Your task to perform on an android device: find photos in the google photos app Image 0: 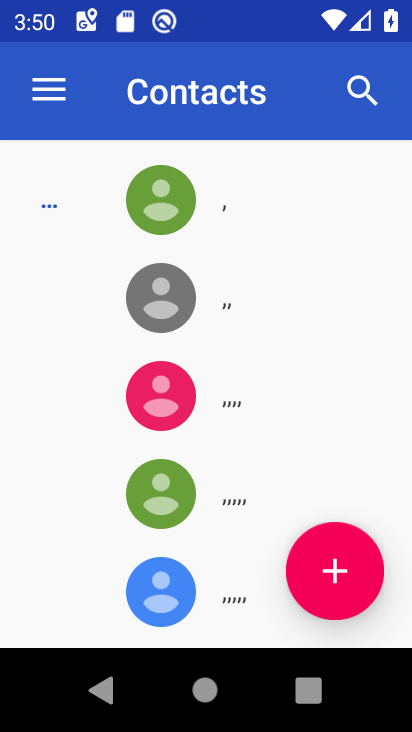
Step 0: press home button
Your task to perform on an android device: find photos in the google photos app Image 1: 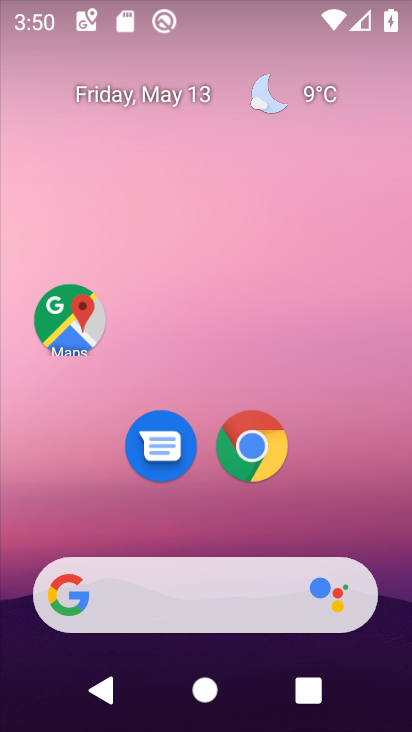
Step 1: drag from (223, 533) to (229, 6)
Your task to perform on an android device: find photos in the google photos app Image 2: 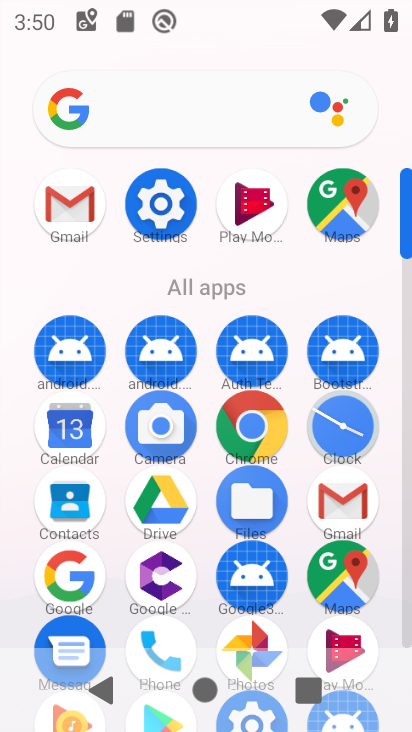
Step 2: click (260, 640)
Your task to perform on an android device: find photos in the google photos app Image 3: 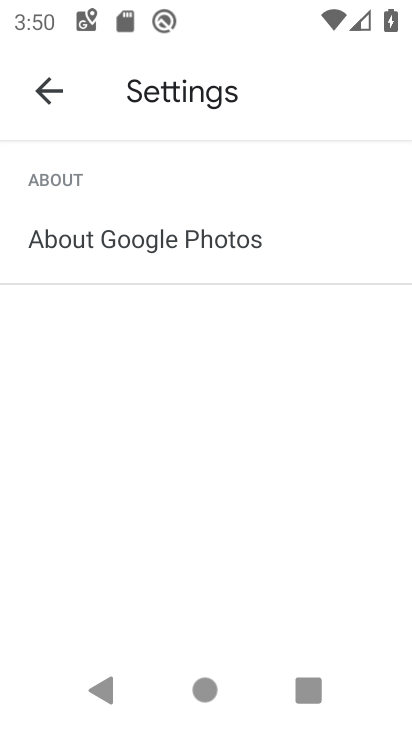
Step 3: click (33, 103)
Your task to perform on an android device: find photos in the google photos app Image 4: 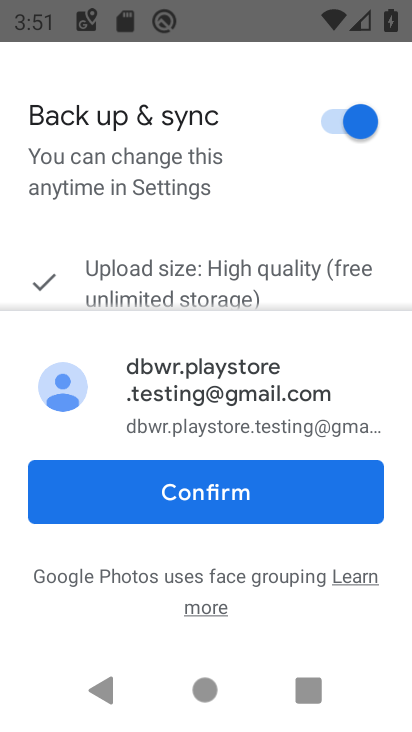
Step 4: click (227, 496)
Your task to perform on an android device: find photos in the google photos app Image 5: 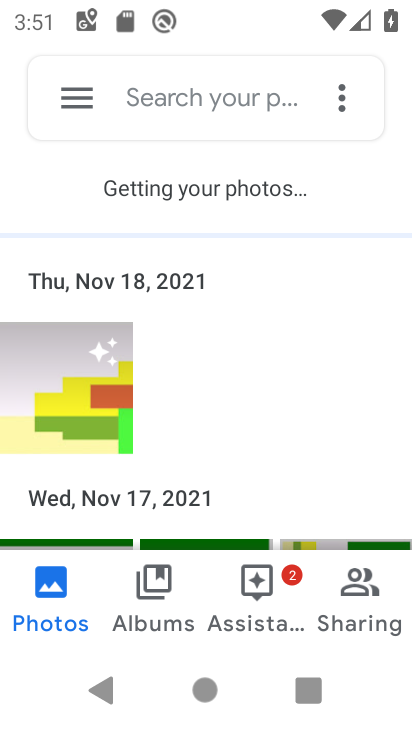
Step 5: task complete